Your task to perform on an android device: toggle location history Image 0: 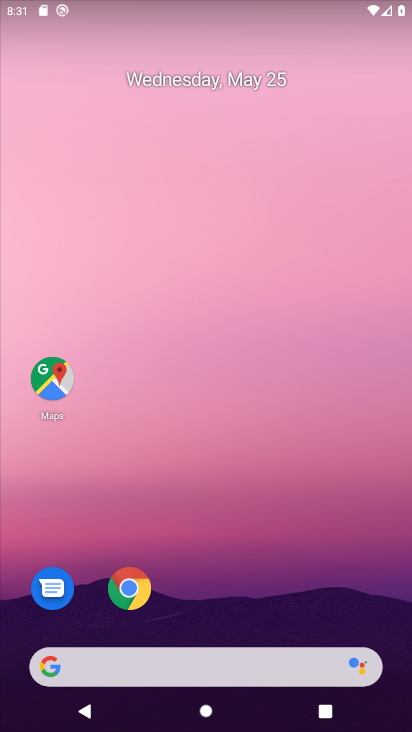
Step 0: drag from (228, 576) to (271, 166)
Your task to perform on an android device: toggle location history Image 1: 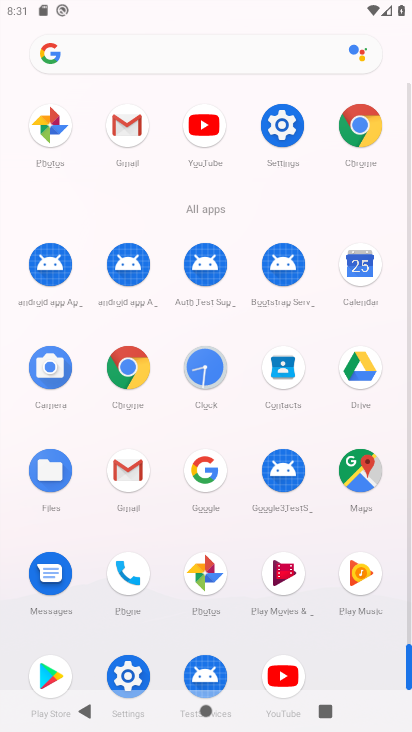
Step 1: click (290, 135)
Your task to perform on an android device: toggle location history Image 2: 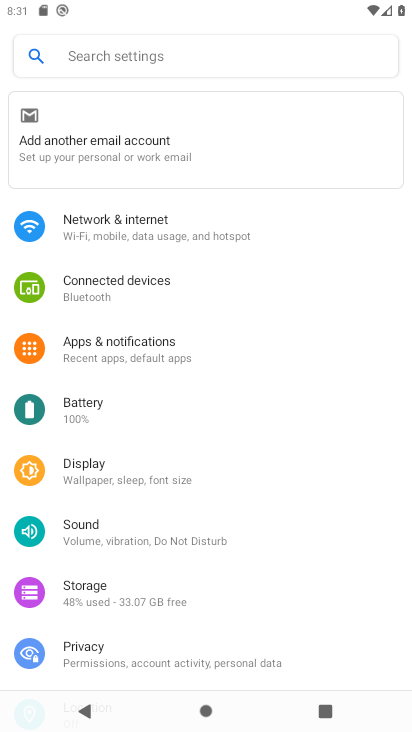
Step 2: drag from (318, 486) to (332, 402)
Your task to perform on an android device: toggle location history Image 3: 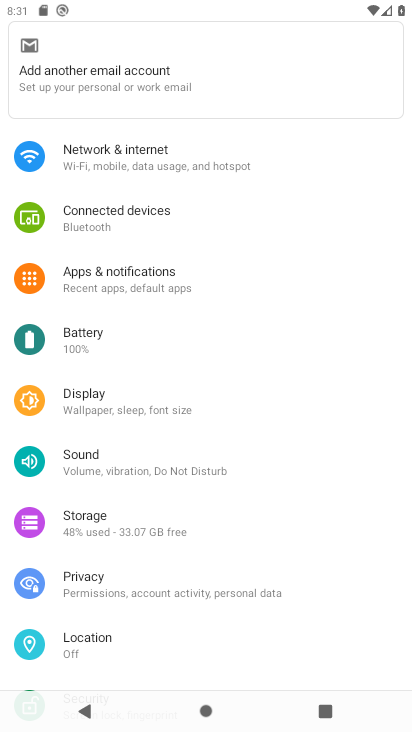
Step 3: drag from (311, 519) to (312, 415)
Your task to perform on an android device: toggle location history Image 4: 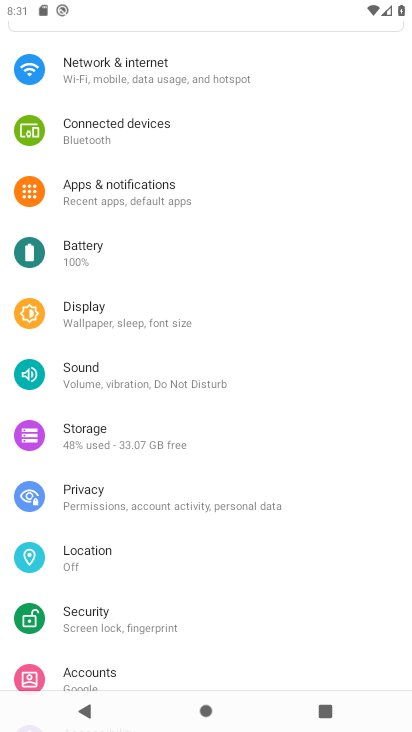
Step 4: drag from (362, 583) to (359, 469)
Your task to perform on an android device: toggle location history Image 5: 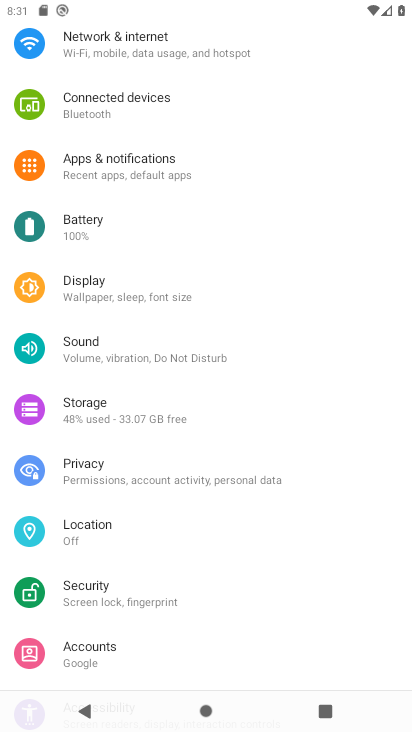
Step 5: drag from (366, 616) to (367, 500)
Your task to perform on an android device: toggle location history Image 6: 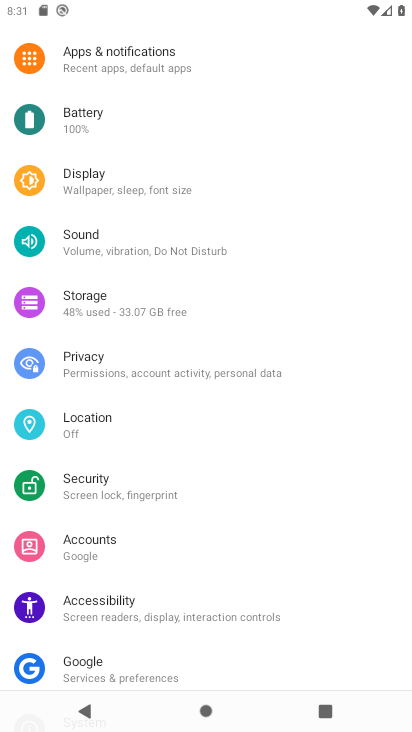
Step 6: drag from (367, 643) to (354, 521)
Your task to perform on an android device: toggle location history Image 7: 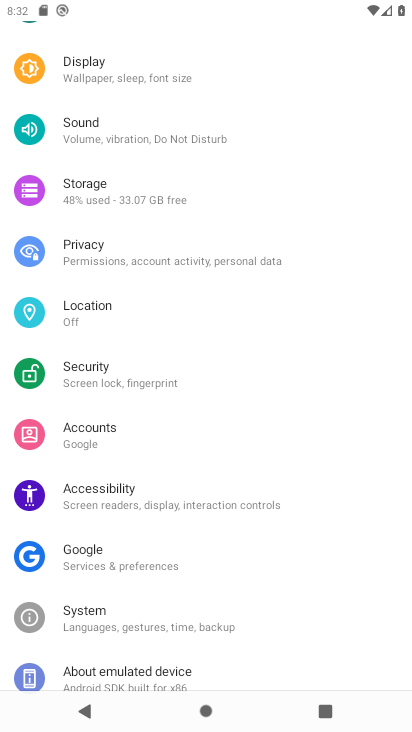
Step 7: drag from (353, 630) to (350, 518)
Your task to perform on an android device: toggle location history Image 8: 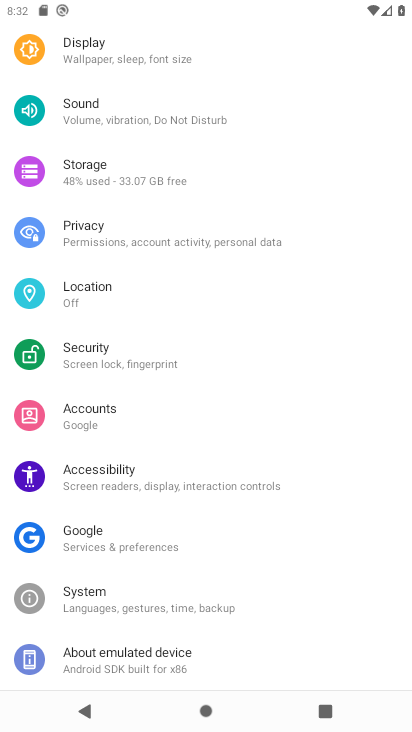
Step 8: click (124, 275)
Your task to perform on an android device: toggle location history Image 9: 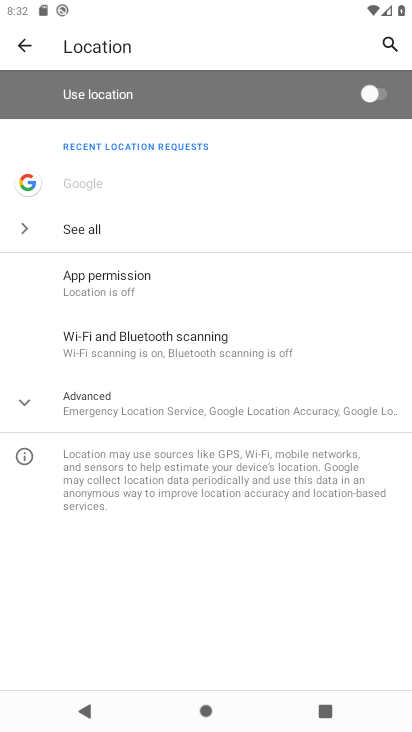
Step 9: click (310, 414)
Your task to perform on an android device: toggle location history Image 10: 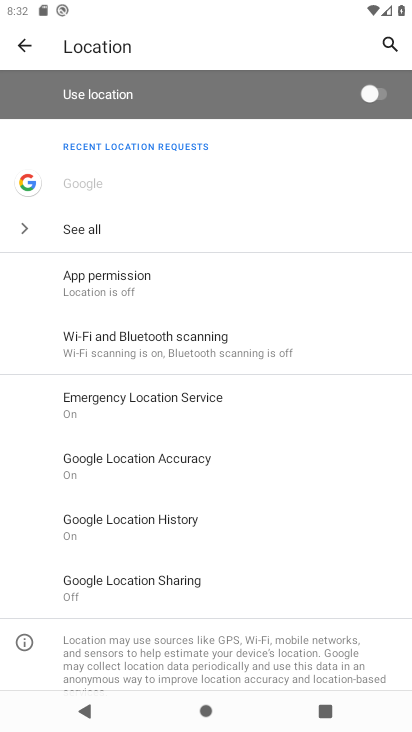
Step 10: click (174, 524)
Your task to perform on an android device: toggle location history Image 11: 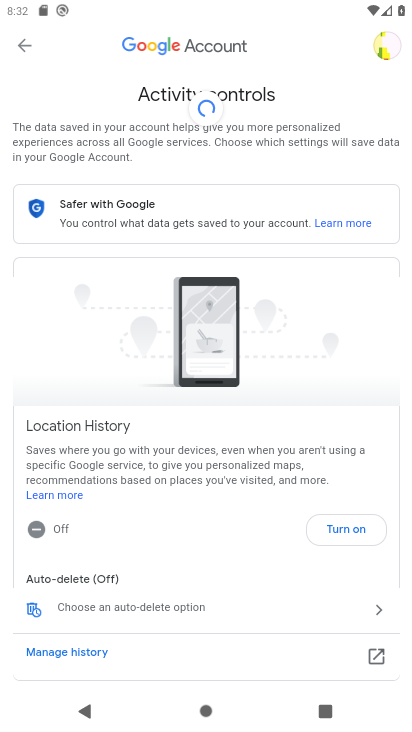
Step 11: click (330, 537)
Your task to perform on an android device: toggle location history Image 12: 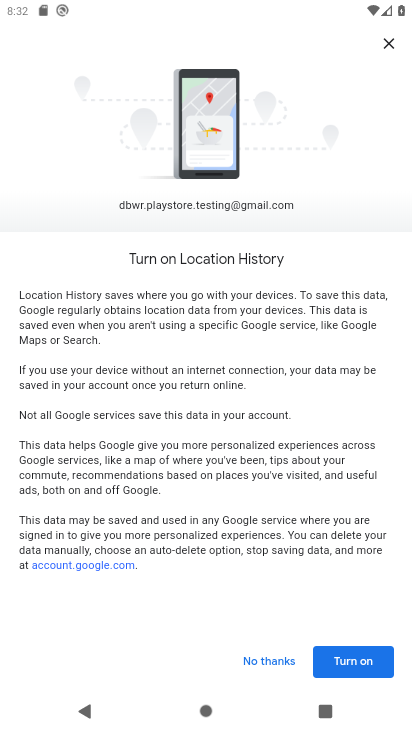
Step 12: click (358, 655)
Your task to perform on an android device: toggle location history Image 13: 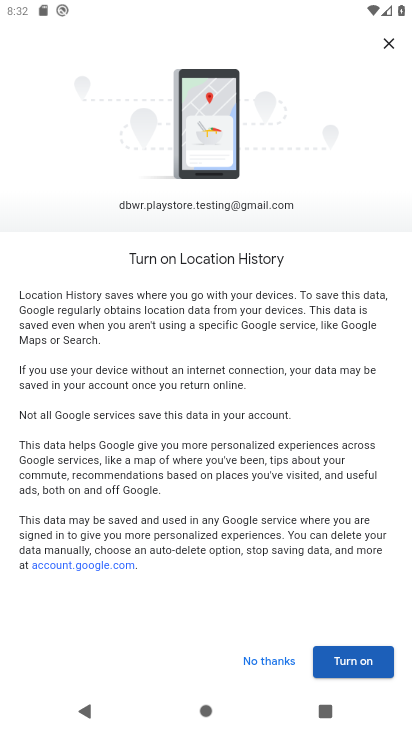
Step 13: click (363, 646)
Your task to perform on an android device: toggle location history Image 14: 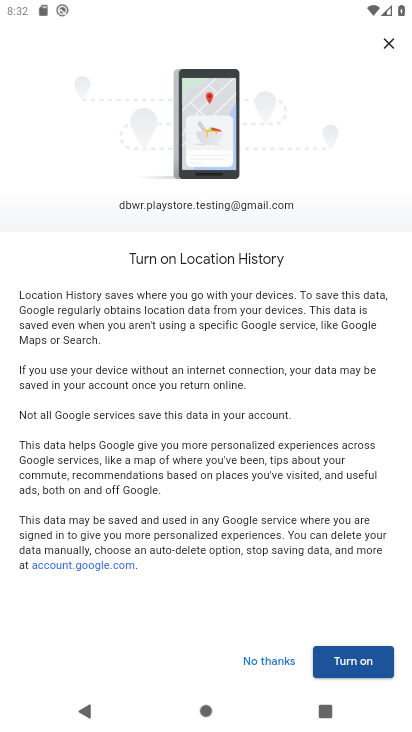
Step 14: click (358, 661)
Your task to perform on an android device: toggle location history Image 15: 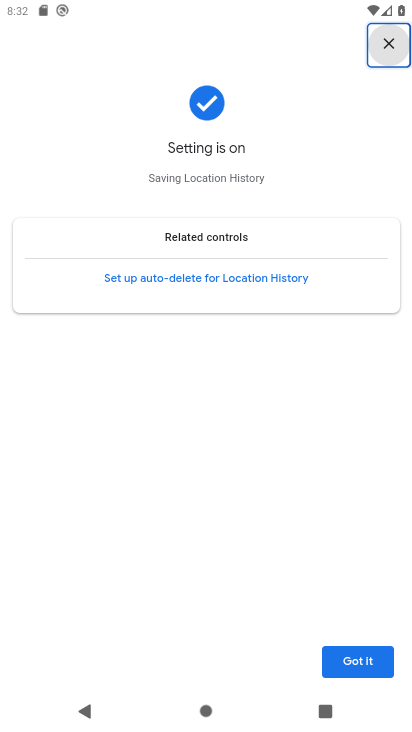
Step 15: task complete